Your task to perform on an android device: allow notifications from all sites in the chrome app Image 0: 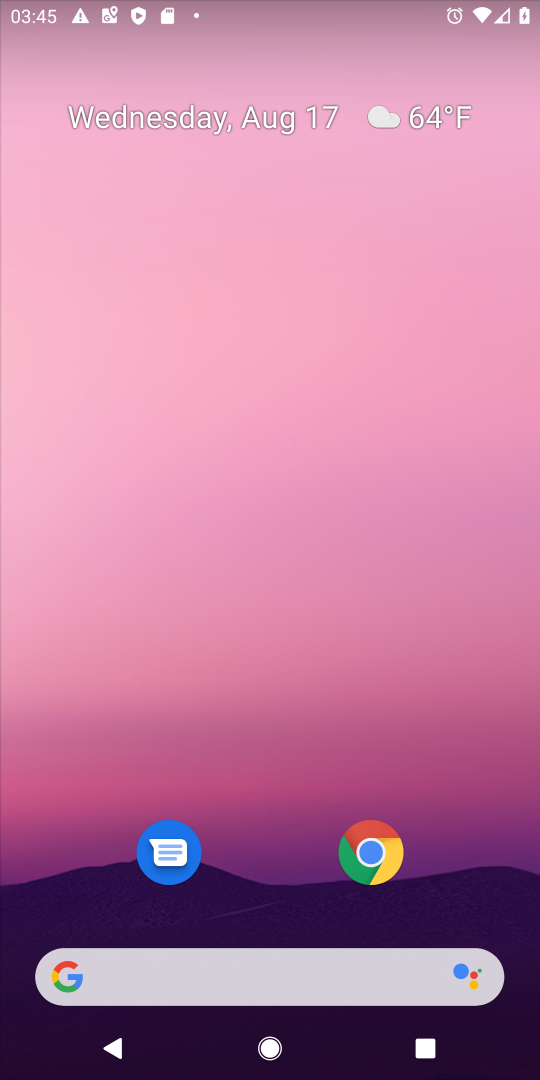
Step 0: drag from (291, 841) to (310, 126)
Your task to perform on an android device: allow notifications from all sites in the chrome app Image 1: 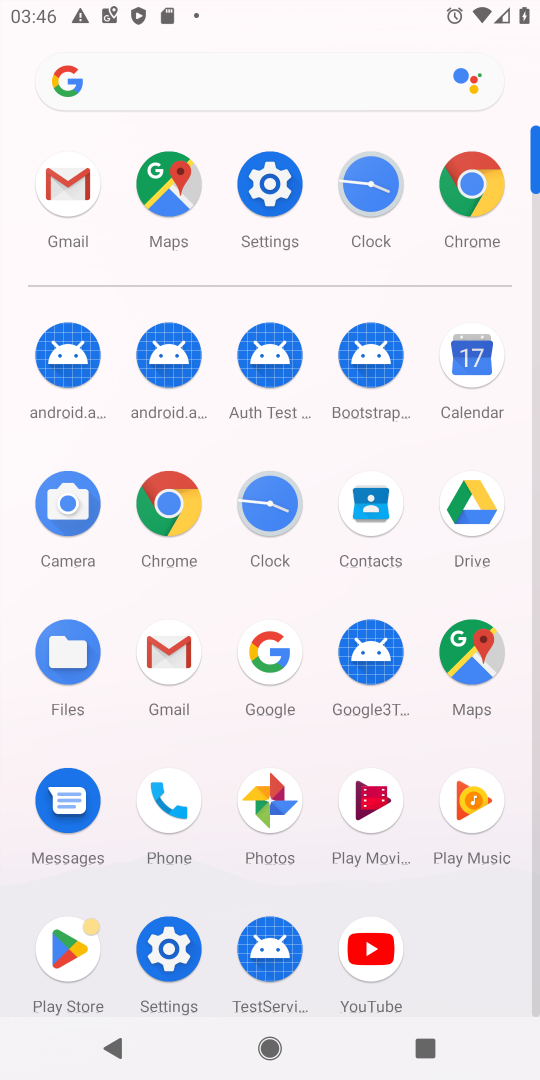
Step 1: click (169, 506)
Your task to perform on an android device: allow notifications from all sites in the chrome app Image 2: 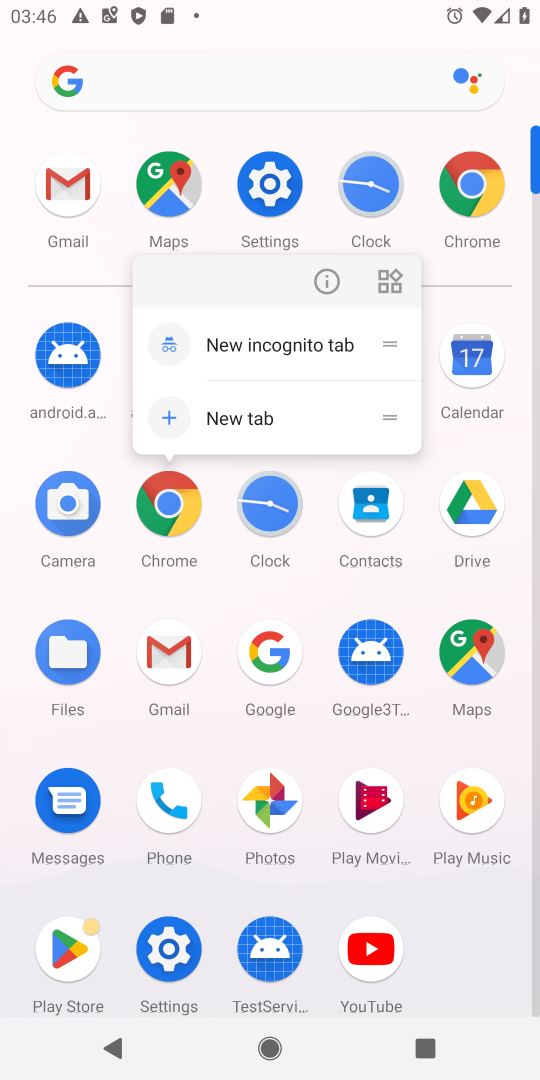
Step 2: click (169, 508)
Your task to perform on an android device: allow notifications from all sites in the chrome app Image 3: 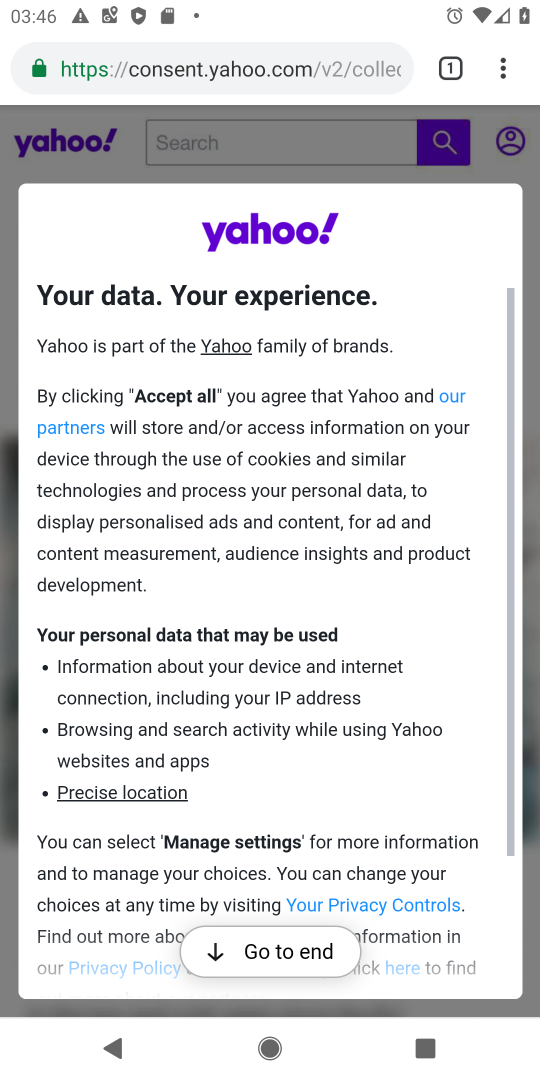
Step 3: drag from (506, 63) to (308, 762)
Your task to perform on an android device: allow notifications from all sites in the chrome app Image 4: 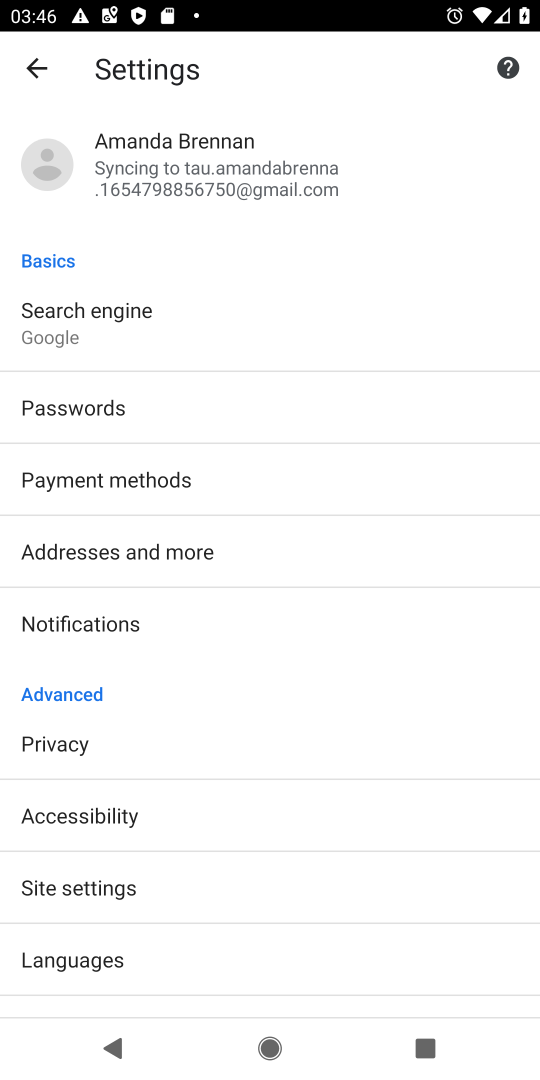
Step 4: drag from (266, 887) to (286, 175)
Your task to perform on an android device: allow notifications from all sites in the chrome app Image 5: 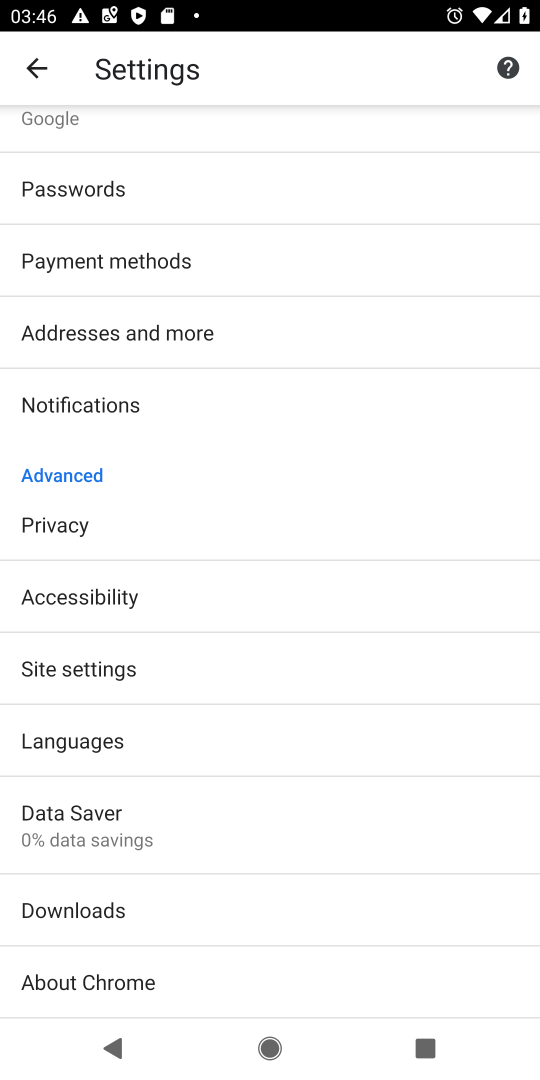
Step 5: drag from (197, 449) to (232, 1063)
Your task to perform on an android device: allow notifications from all sites in the chrome app Image 6: 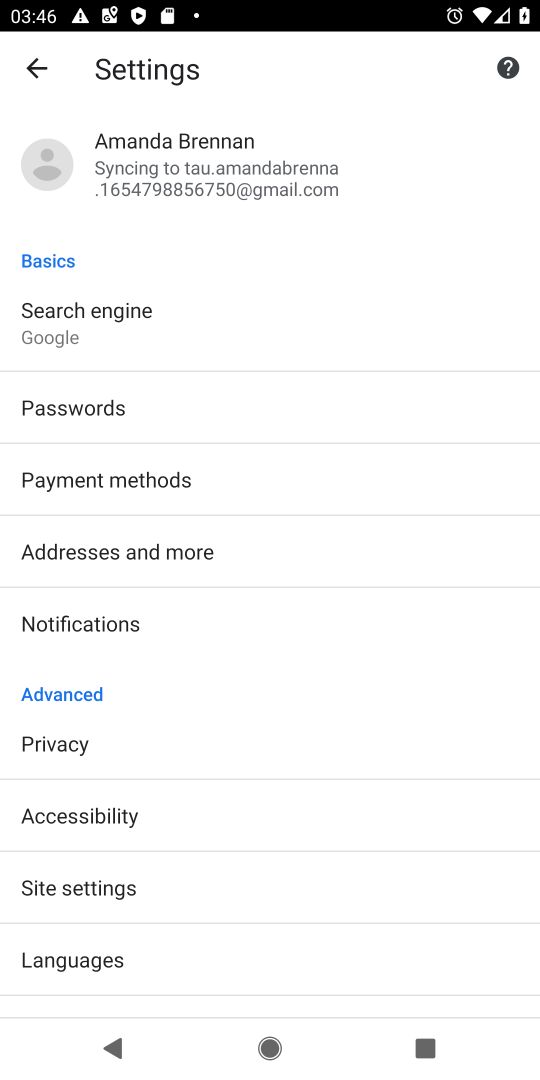
Step 6: click (107, 888)
Your task to perform on an android device: allow notifications from all sites in the chrome app Image 7: 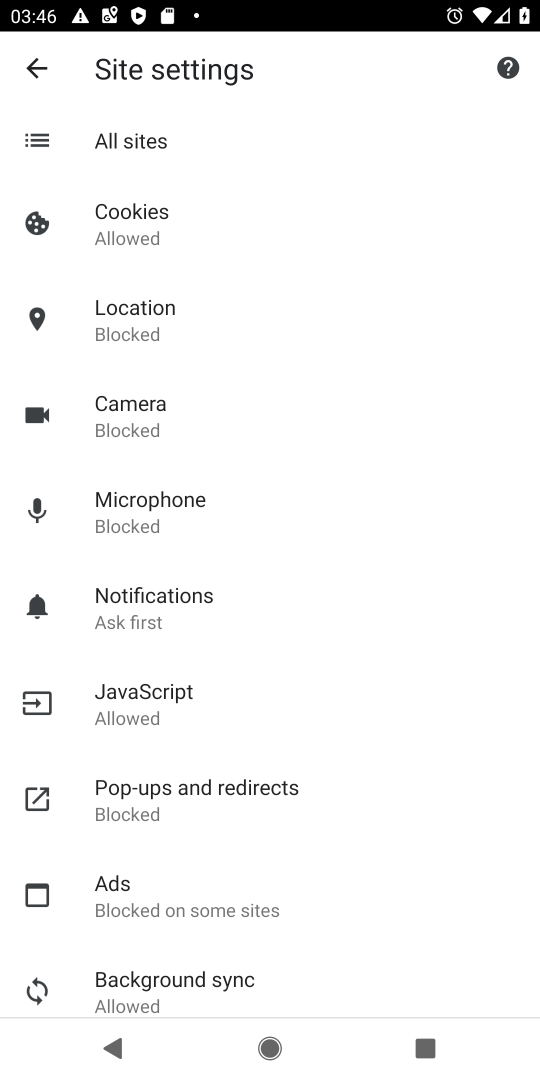
Step 7: click (164, 619)
Your task to perform on an android device: allow notifications from all sites in the chrome app Image 8: 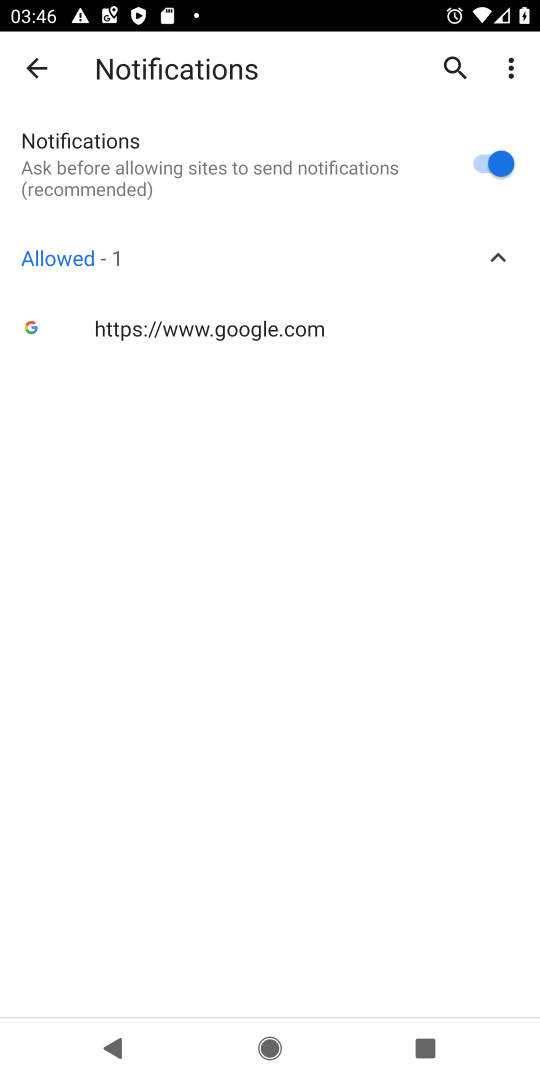
Step 8: task complete